Your task to perform on an android device: change the clock display to show seconds Image 0: 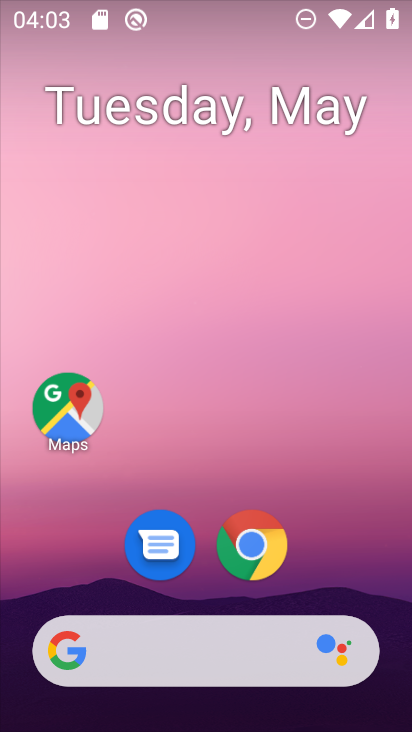
Step 0: drag from (388, 609) to (346, 34)
Your task to perform on an android device: change the clock display to show seconds Image 1: 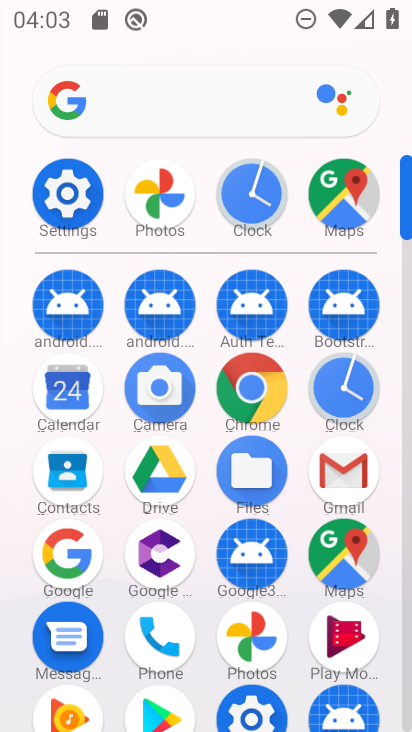
Step 1: click (343, 383)
Your task to perform on an android device: change the clock display to show seconds Image 2: 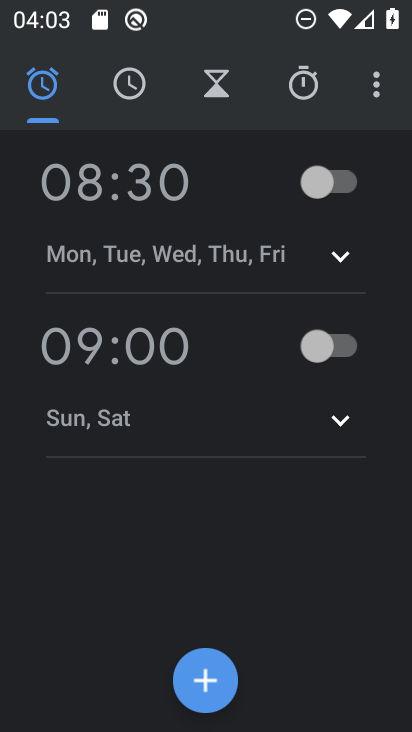
Step 2: click (371, 86)
Your task to perform on an android device: change the clock display to show seconds Image 3: 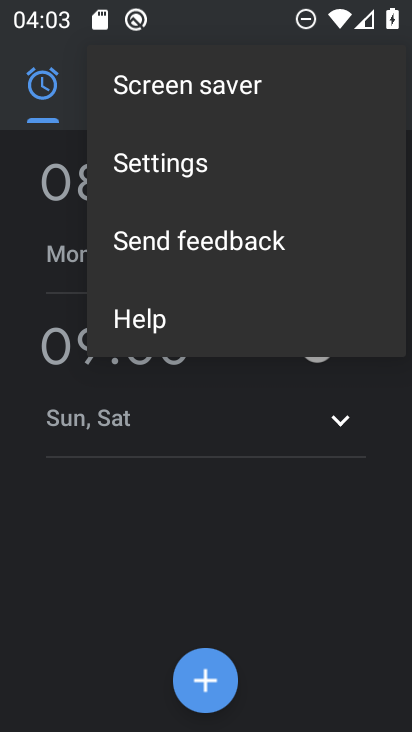
Step 3: click (160, 169)
Your task to perform on an android device: change the clock display to show seconds Image 4: 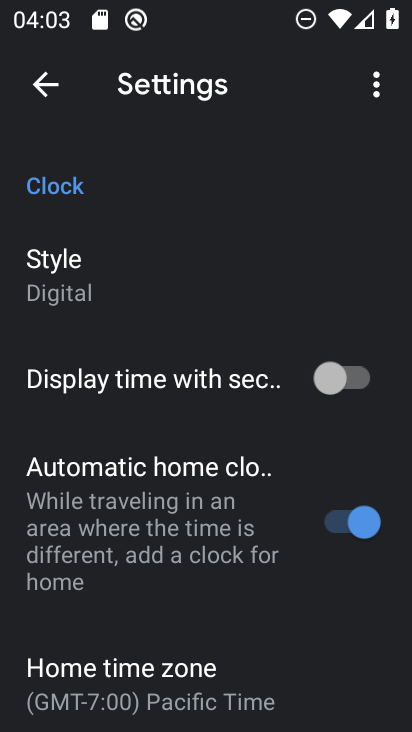
Step 4: click (350, 376)
Your task to perform on an android device: change the clock display to show seconds Image 5: 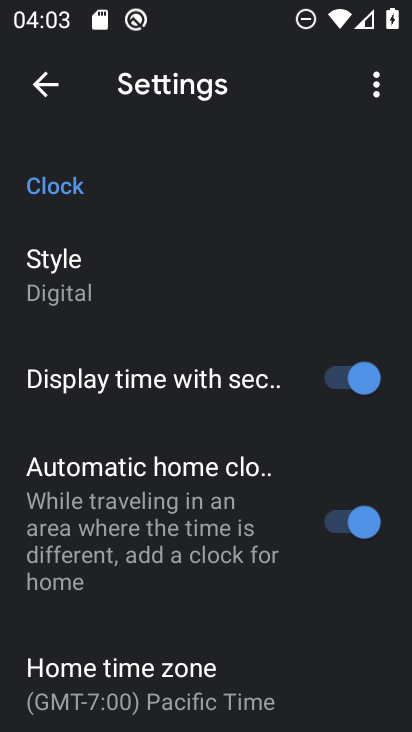
Step 5: task complete